Your task to perform on an android device: Go to sound settings Image 0: 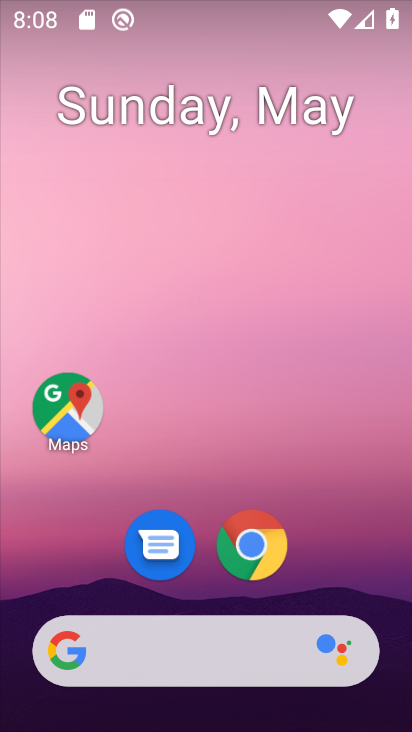
Step 0: drag from (93, 615) to (228, 124)
Your task to perform on an android device: Go to sound settings Image 1: 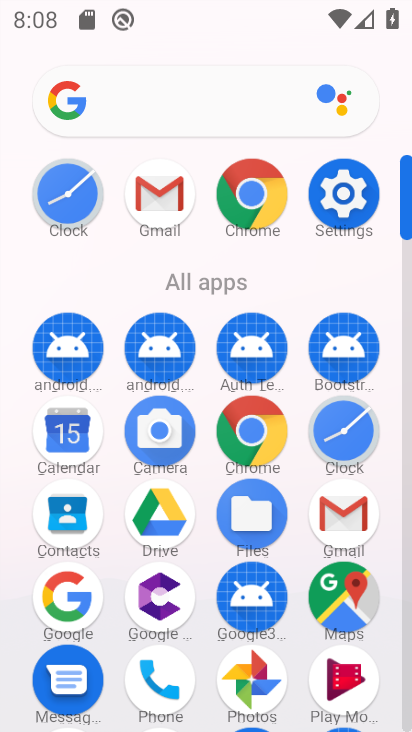
Step 1: click (340, 213)
Your task to perform on an android device: Go to sound settings Image 2: 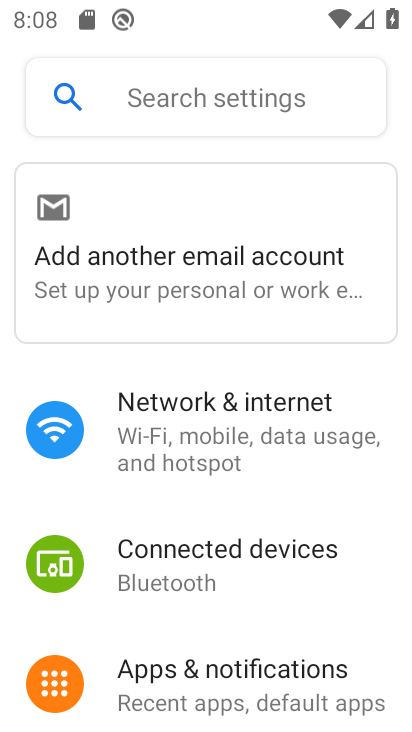
Step 2: drag from (173, 572) to (320, 82)
Your task to perform on an android device: Go to sound settings Image 3: 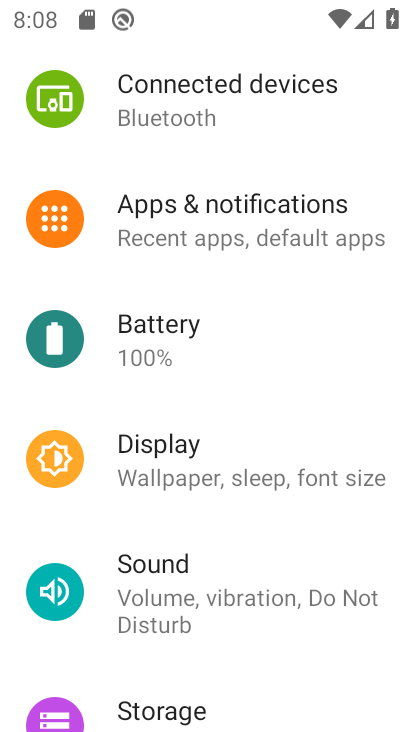
Step 3: click (178, 607)
Your task to perform on an android device: Go to sound settings Image 4: 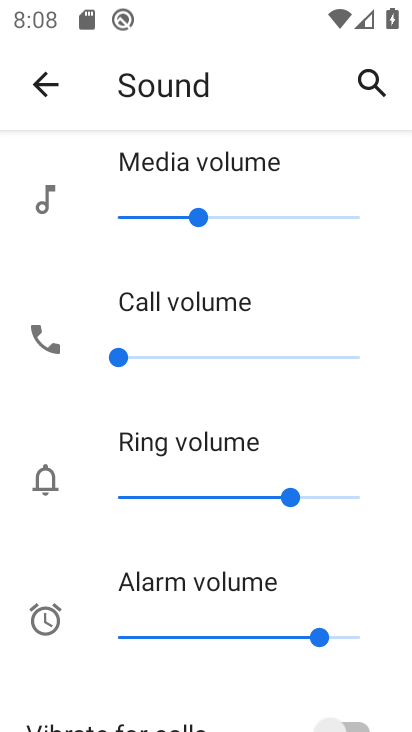
Step 4: task complete